Your task to perform on an android device: Open maps Image 0: 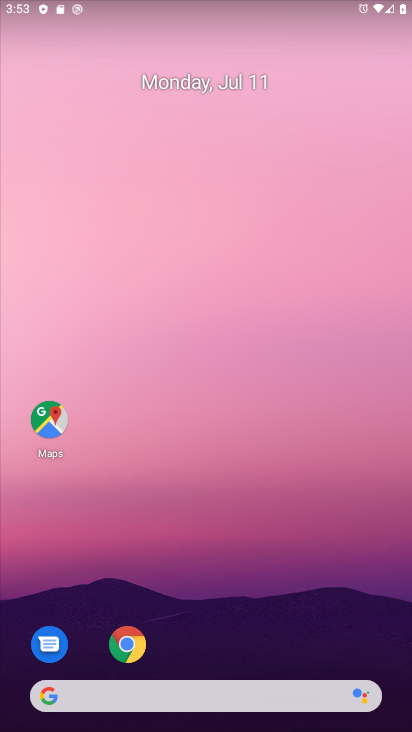
Step 0: drag from (253, 640) to (241, 35)
Your task to perform on an android device: Open maps Image 1: 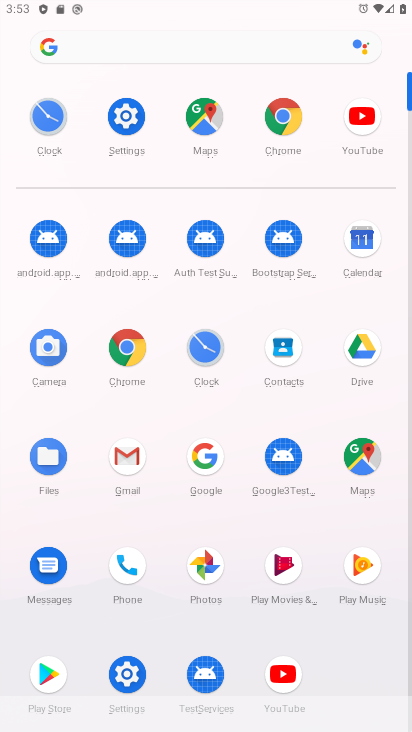
Step 1: click (195, 123)
Your task to perform on an android device: Open maps Image 2: 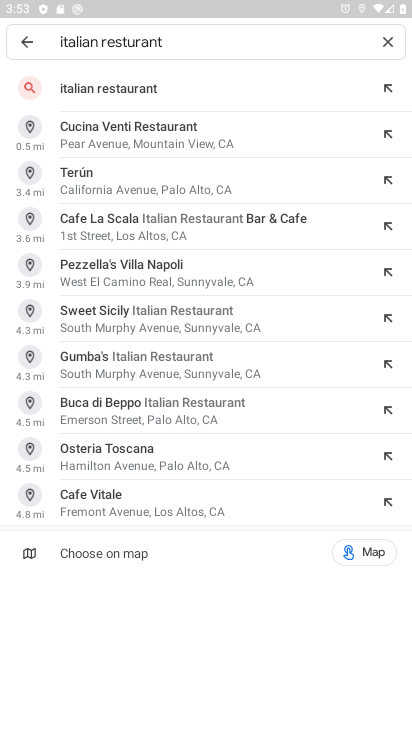
Step 2: click (389, 43)
Your task to perform on an android device: Open maps Image 3: 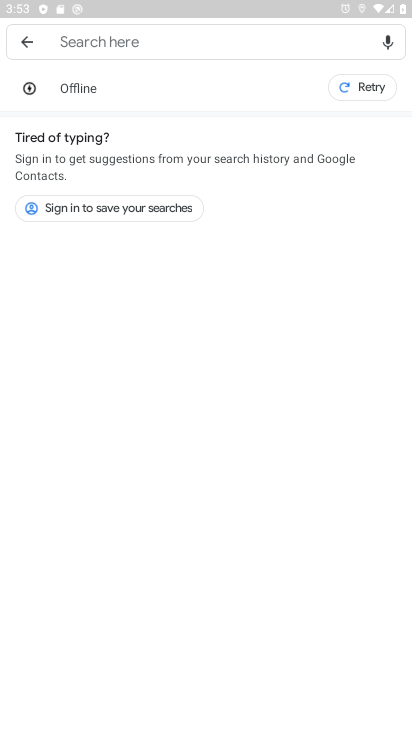
Step 3: click (23, 39)
Your task to perform on an android device: Open maps Image 4: 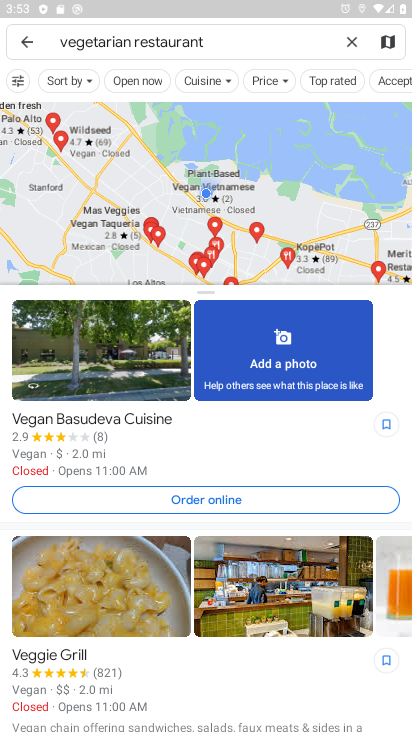
Step 4: task complete